Your task to perform on an android device: Open Google Chrome Image 0: 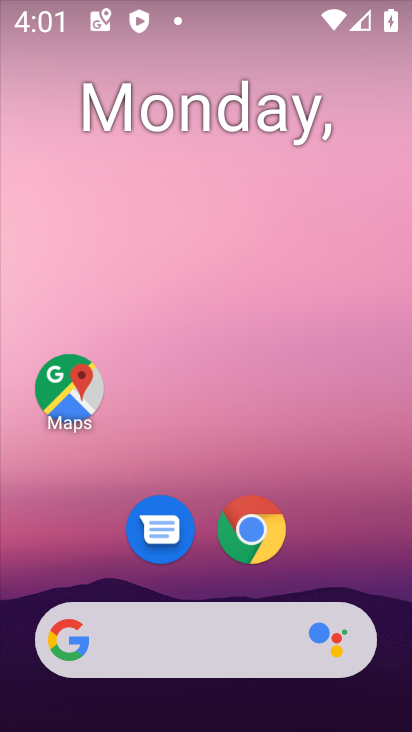
Step 0: click (245, 535)
Your task to perform on an android device: Open Google Chrome Image 1: 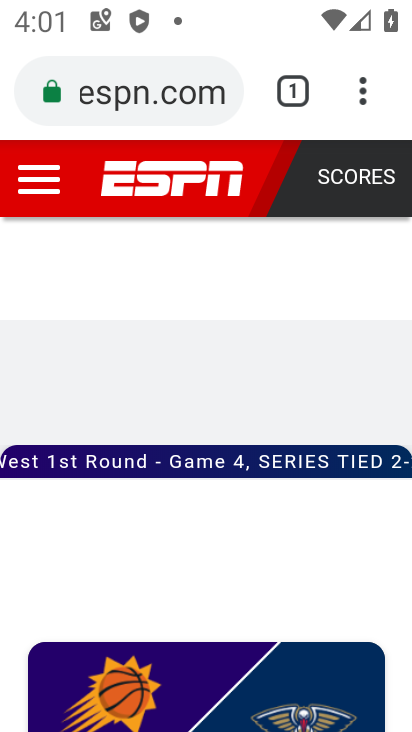
Step 1: task complete